Your task to perform on an android device: How big is the moon? Image 0: 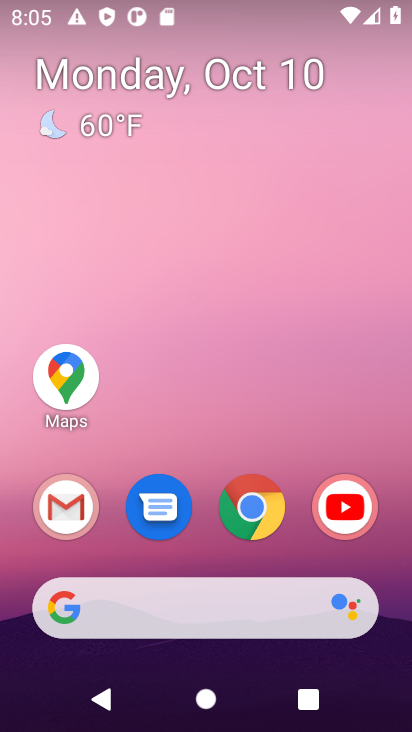
Step 0: drag from (223, 531) to (310, 66)
Your task to perform on an android device: How big is the moon? Image 1: 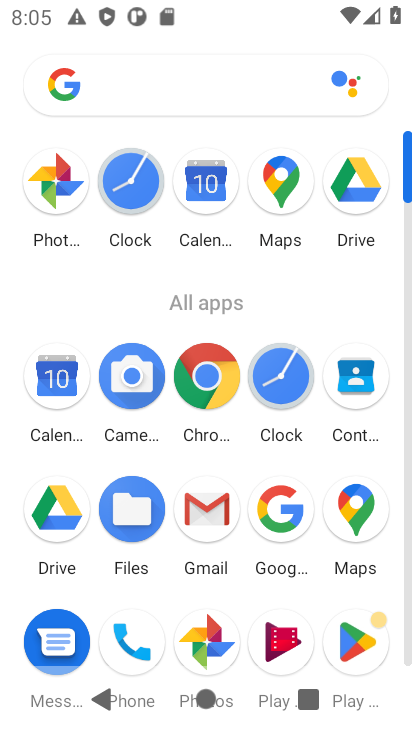
Step 1: click (261, 508)
Your task to perform on an android device: How big is the moon? Image 2: 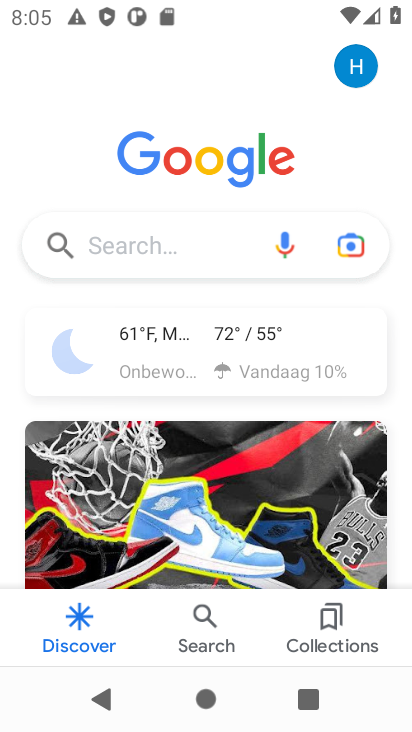
Step 2: click (104, 237)
Your task to perform on an android device: How big is the moon? Image 3: 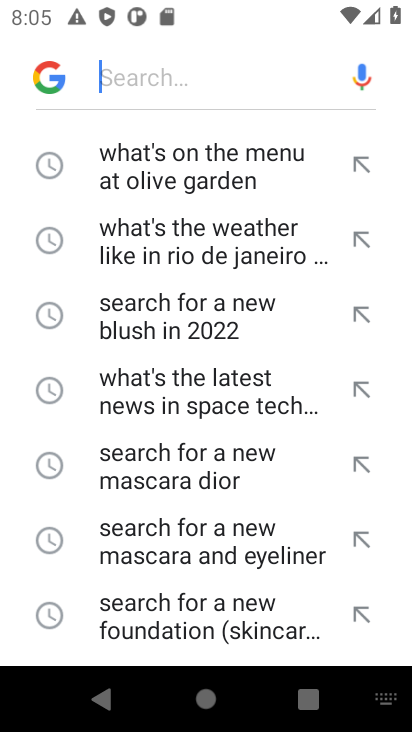
Step 3: type "How big is the moon?"
Your task to perform on an android device: How big is the moon? Image 4: 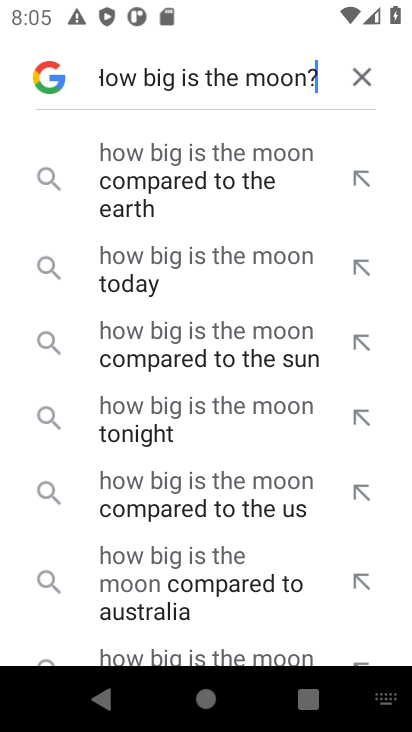
Step 4: click (249, 272)
Your task to perform on an android device: How big is the moon? Image 5: 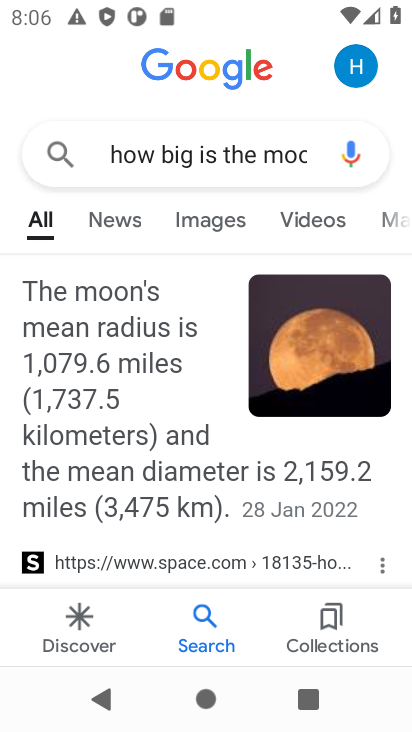
Step 5: task complete